Your task to perform on an android device: toggle sleep mode Image 0: 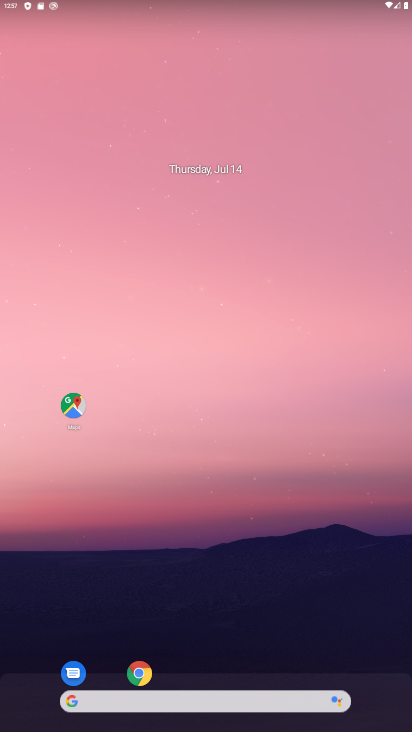
Step 0: drag from (192, 632) to (193, 358)
Your task to perform on an android device: toggle sleep mode Image 1: 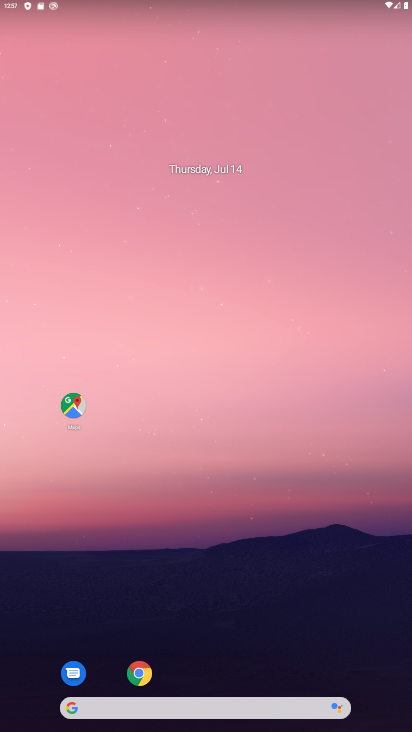
Step 1: drag from (220, 681) to (219, 213)
Your task to perform on an android device: toggle sleep mode Image 2: 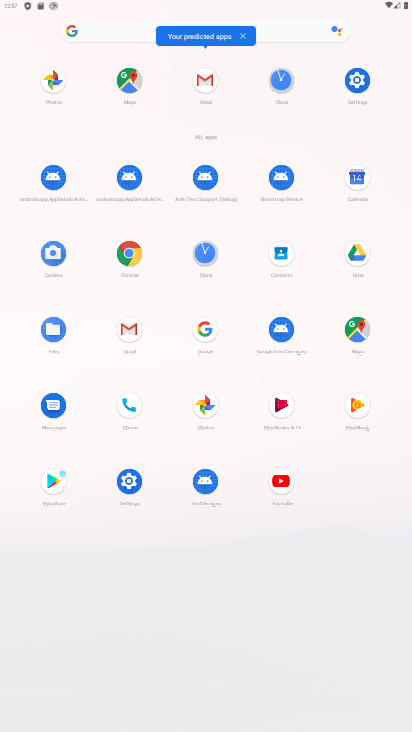
Step 2: click (128, 480)
Your task to perform on an android device: toggle sleep mode Image 3: 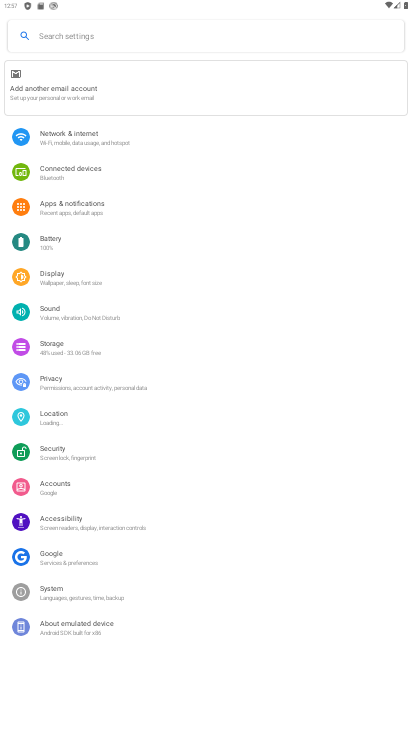
Step 3: click (96, 284)
Your task to perform on an android device: toggle sleep mode Image 4: 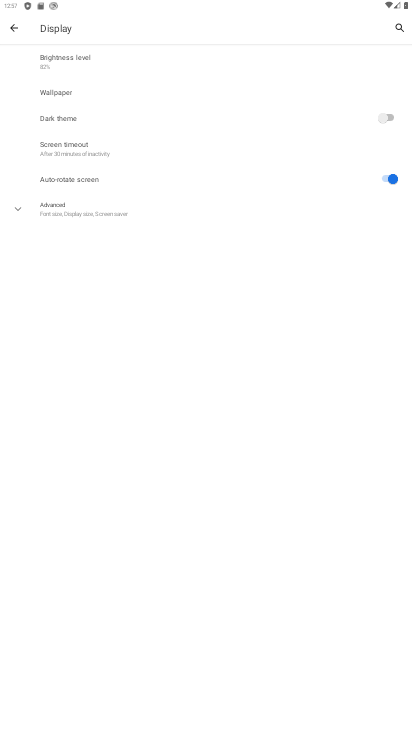
Step 4: click (91, 219)
Your task to perform on an android device: toggle sleep mode Image 5: 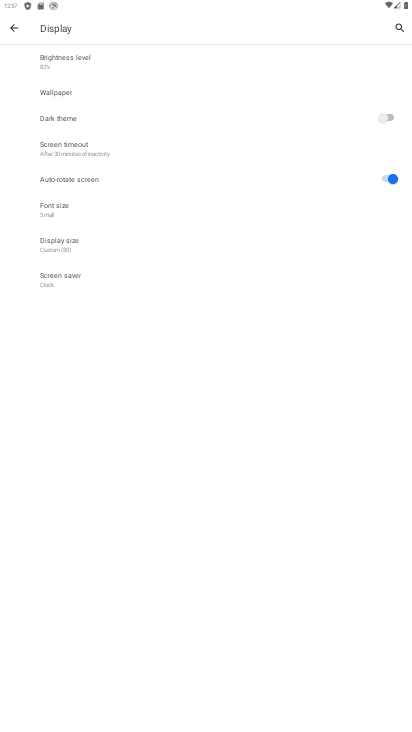
Step 5: task complete